Your task to perform on an android device: change text size in settings app Image 0: 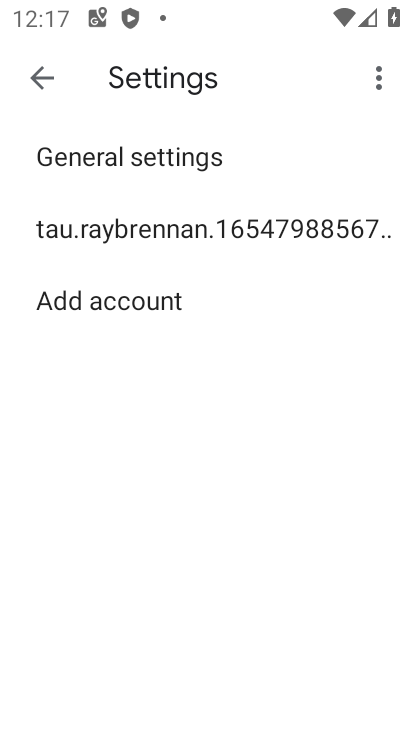
Step 0: press back button
Your task to perform on an android device: change text size in settings app Image 1: 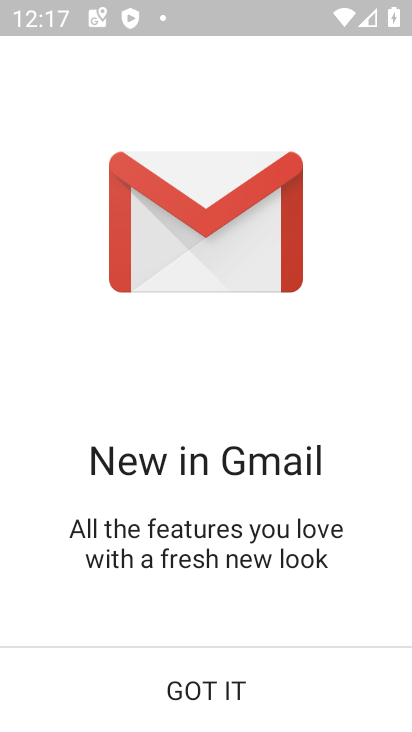
Step 1: press back button
Your task to perform on an android device: change text size in settings app Image 2: 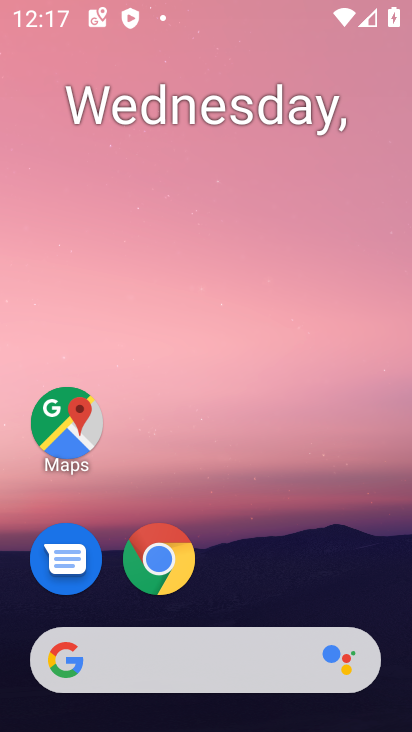
Step 2: press back button
Your task to perform on an android device: change text size in settings app Image 3: 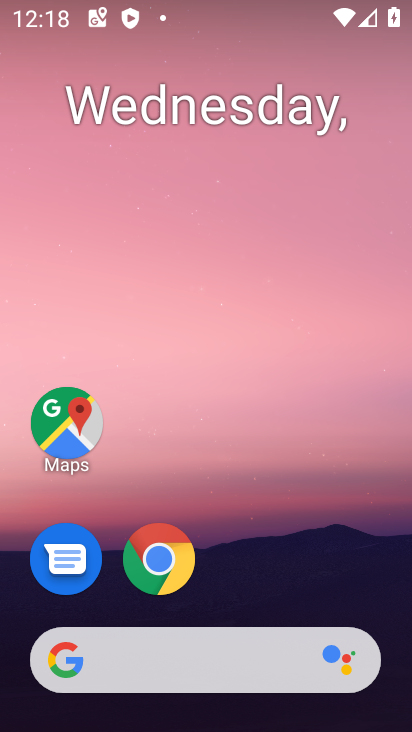
Step 3: drag from (263, 593) to (302, 33)
Your task to perform on an android device: change text size in settings app Image 4: 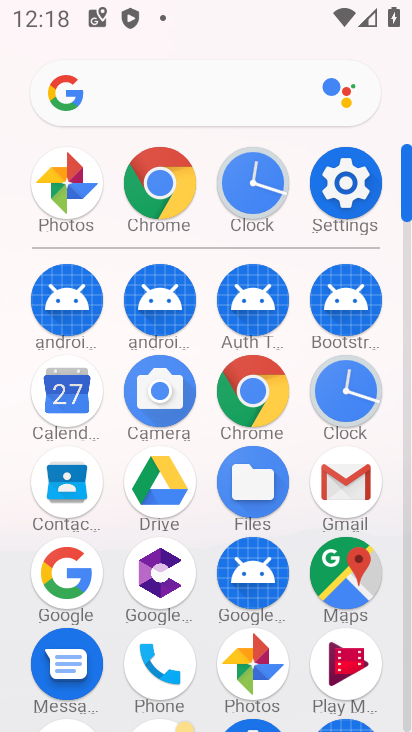
Step 4: click (345, 191)
Your task to perform on an android device: change text size in settings app Image 5: 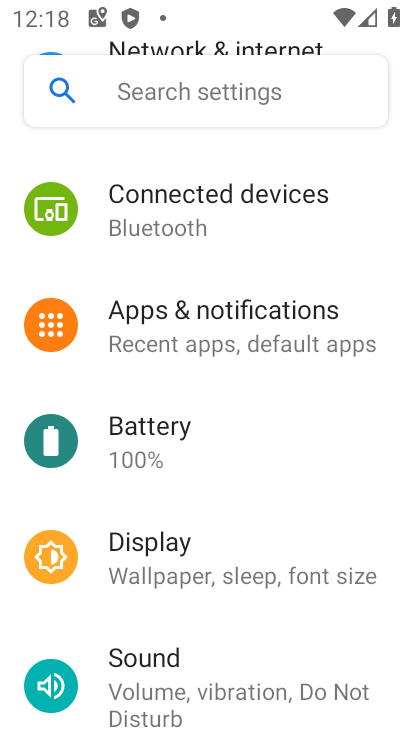
Step 5: click (155, 95)
Your task to perform on an android device: change text size in settings app Image 6: 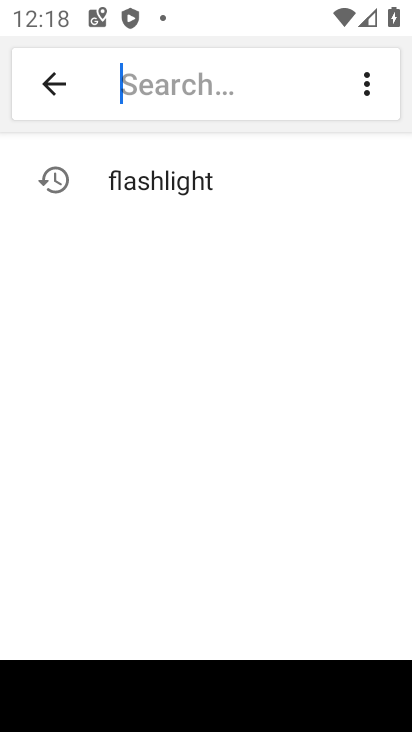
Step 6: type "text size"
Your task to perform on an android device: change text size in settings app Image 7: 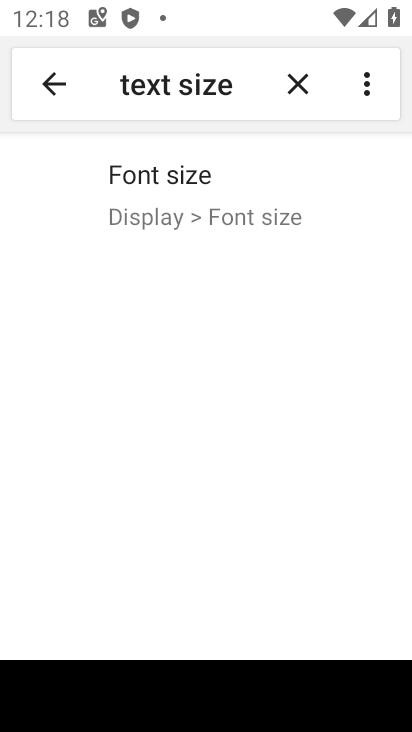
Step 7: click (245, 207)
Your task to perform on an android device: change text size in settings app Image 8: 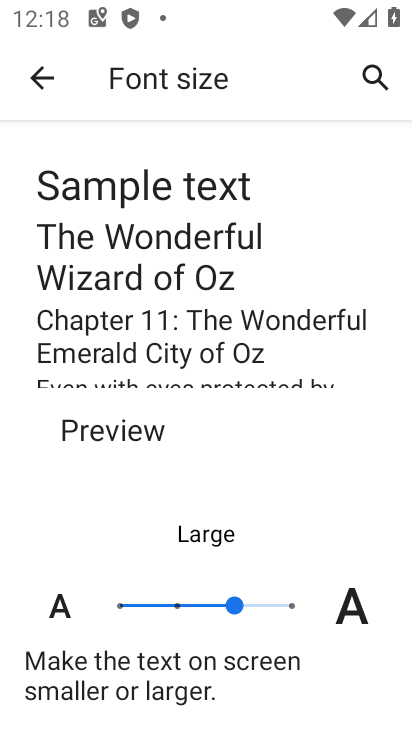
Step 8: task complete